Your task to perform on an android device: turn off airplane mode Image 0: 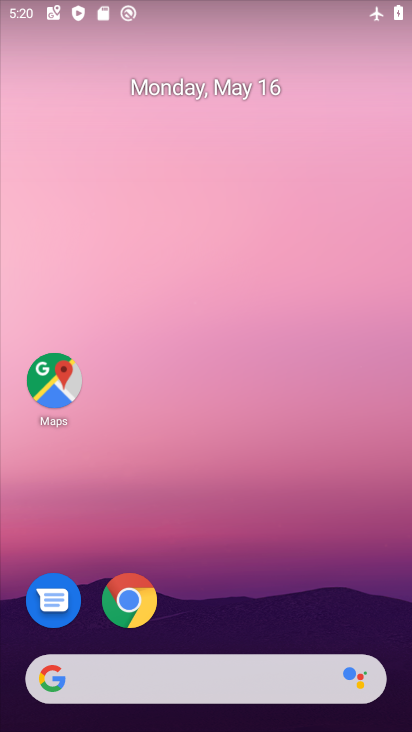
Step 0: drag from (207, 646) to (21, 116)
Your task to perform on an android device: turn off airplane mode Image 1: 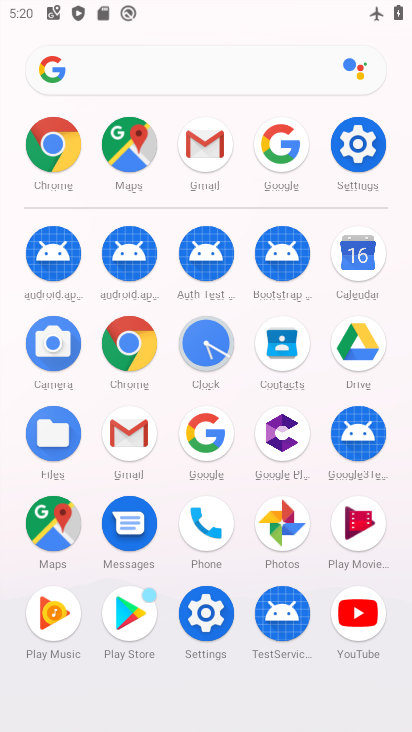
Step 1: click (349, 155)
Your task to perform on an android device: turn off airplane mode Image 2: 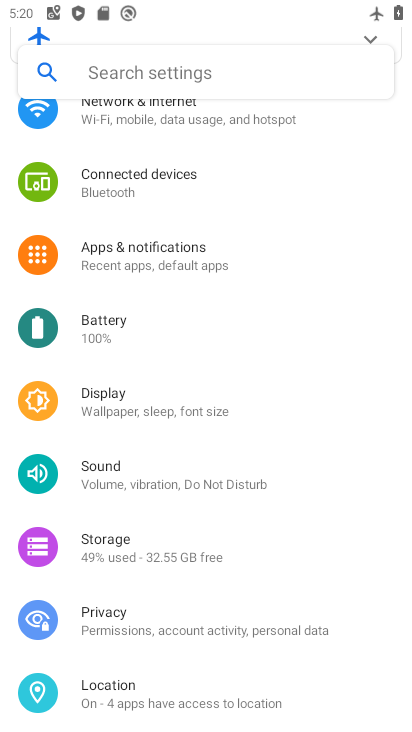
Step 2: drag from (180, 165) to (204, 463)
Your task to perform on an android device: turn off airplane mode Image 3: 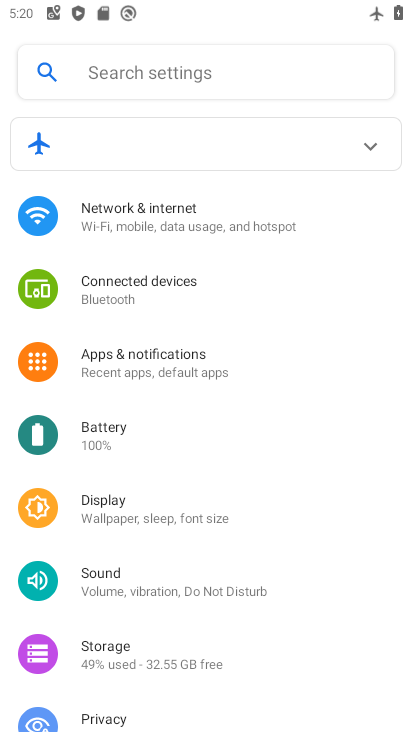
Step 3: click (137, 201)
Your task to perform on an android device: turn off airplane mode Image 4: 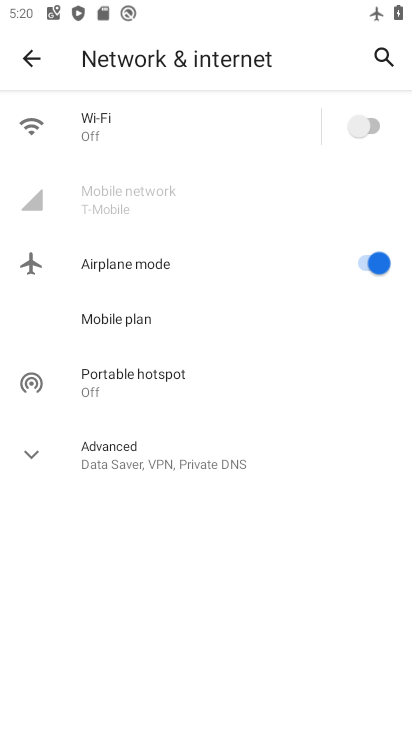
Step 4: click (372, 255)
Your task to perform on an android device: turn off airplane mode Image 5: 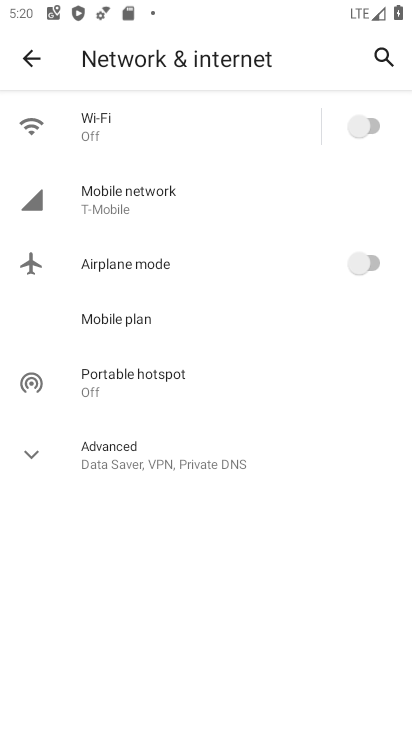
Step 5: task complete